Your task to perform on an android device: Open Google Maps and go to "Timeline" Image 0: 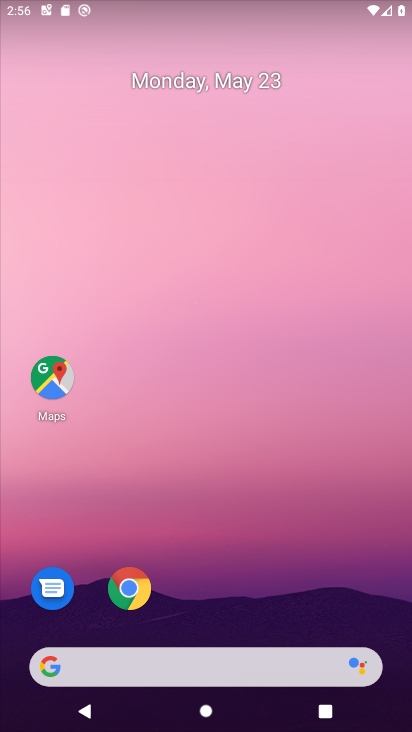
Step 0: drag from (199, 617) to (212, 54)
Your task to perform on an android device: Open Google Maps and go to "Timeline" Image 1: 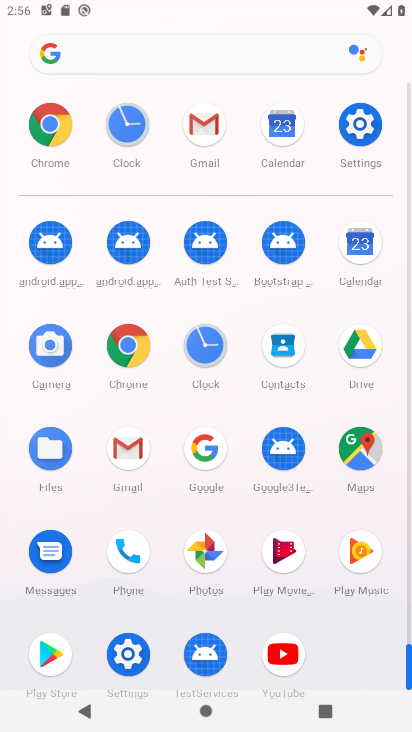
Step 1: click (364, 447)
Your task to perform on an android device: Open Google Maps and go to "Timeline" Image 2: 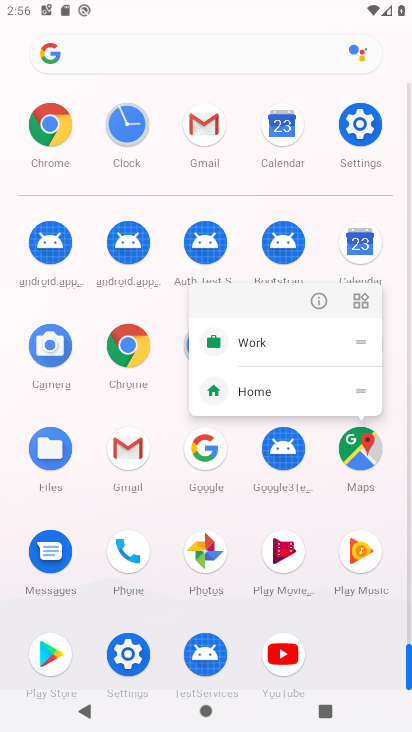
Step 2: click (320, 298)
Your task to perform on an android device: Open Google Maps and go to "Timeline" Image 3: 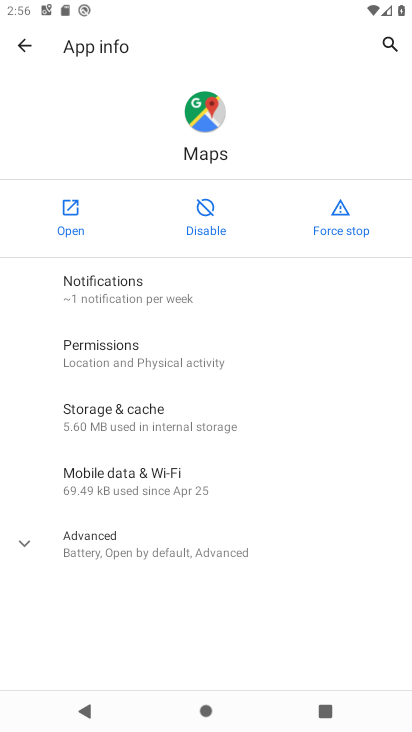
Step 3: click (73, 210)
Your task to perform on an android device: Open Google Maps and go to "Timeline" Image 4: 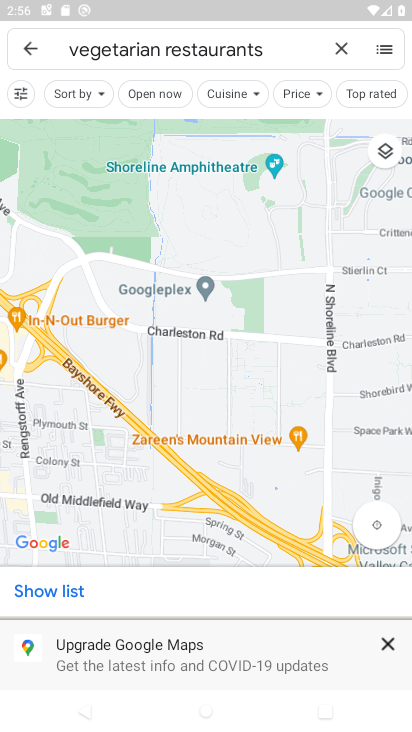
Step 4: click (35, 46)
Your task to perform on an android device: Open Google Maps and go to "Timeline" Image 5: 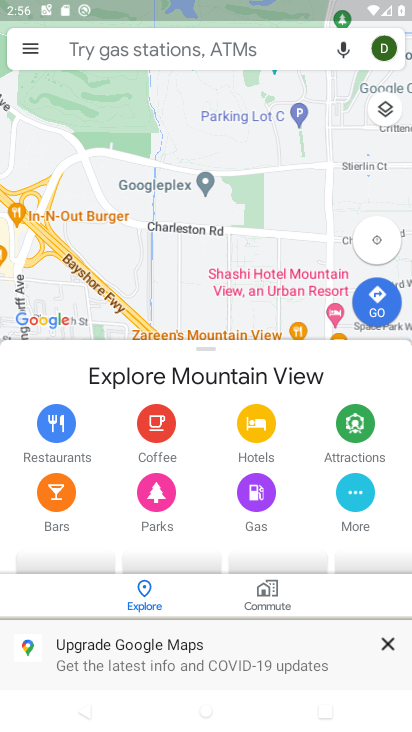
Step 5: click (24, 44)
Your task to perform on an android device: Open Google Maps and go to "Timeline" Image 6: 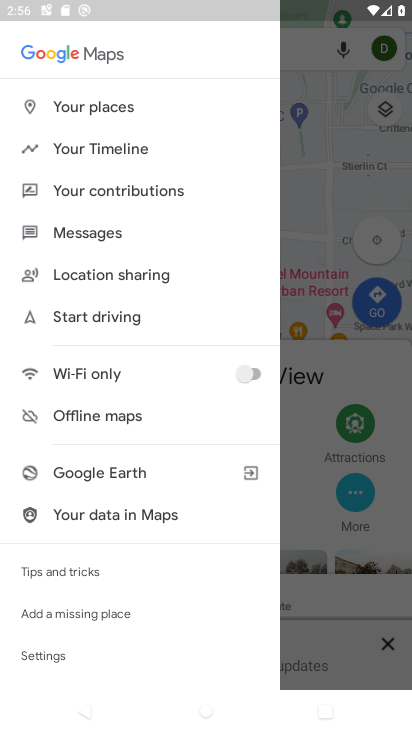
Step 6: click (130, 150)
Your task to perform on an android device: Open Google Maps and go to "Timeline" Image 7: 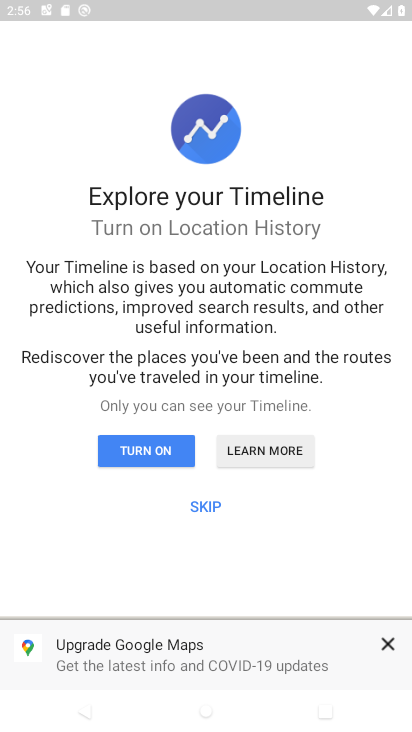
Step 7: task complete